Your task to perform on an android device: change notification settings in the gmail app Image 0: 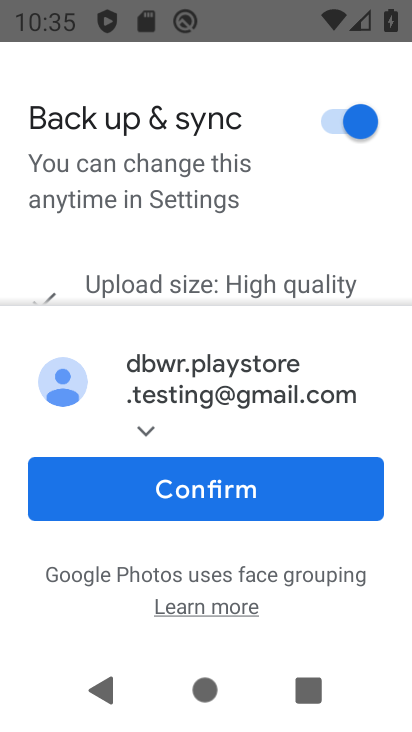
Step 0: press back button
Your task to perform on an android device: change notification settings in the gmail app Image 1: 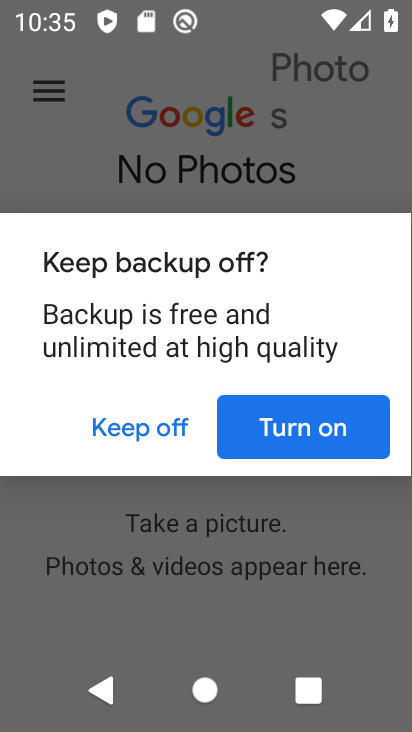
Step 1: press home button
Your task to perform on an android device: change notification settings in the gmail app Image 2: 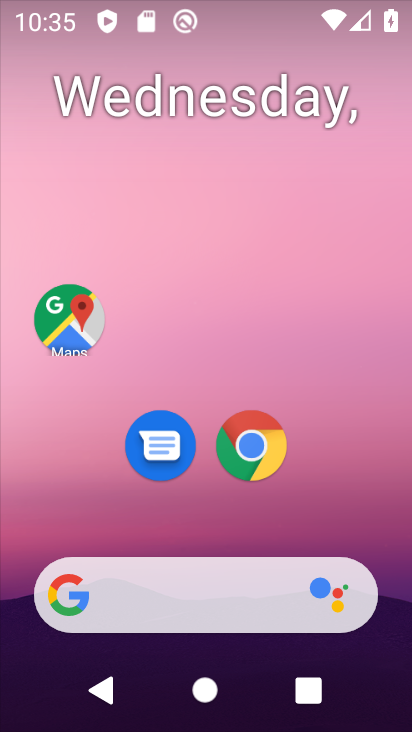
Step 2: drag from (132, 560) to (208, 73)
Your task to perform on an android device: change notification settings in the gmail app Image 3: 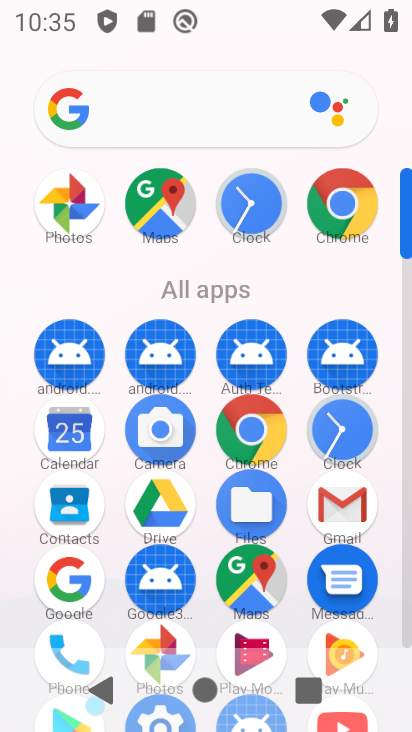
Step 3: click (326, 503)
Your task to perform on an android device: change notification settings in the gmail app Image 4: 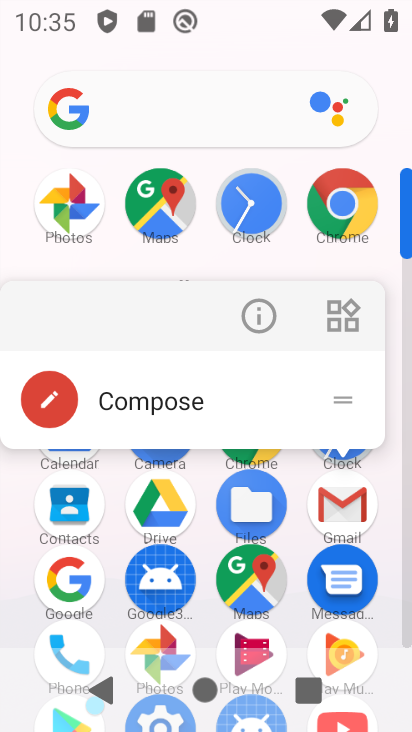
Step 4: click (260, 318)
Your task to perform on an android device: change notification settings in the gmail app Image 5: 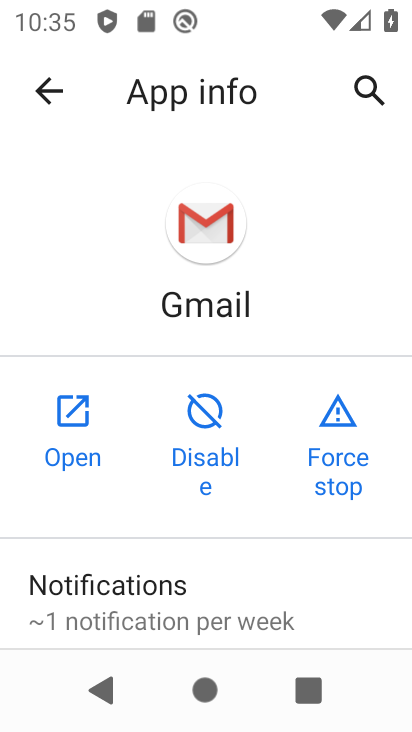
Step 5: click (134, 607)
Your task to perform on an android device: change notification settings in the gmail app Image 6: 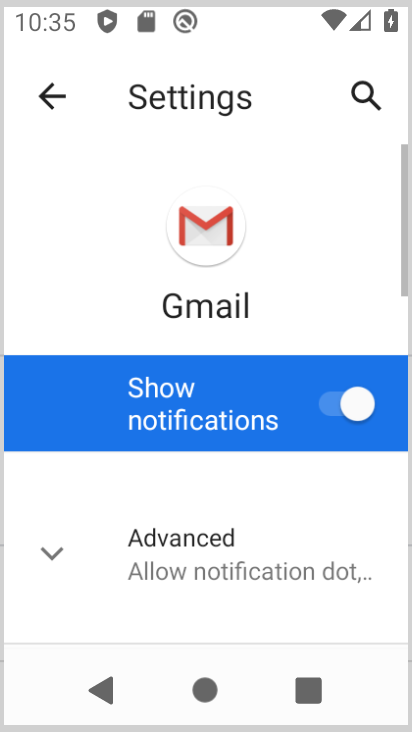
Step 6: drag from (149, 590) to (206, 148)
Your task to perform on an android device: change notification settings in the gmail app Image 7: 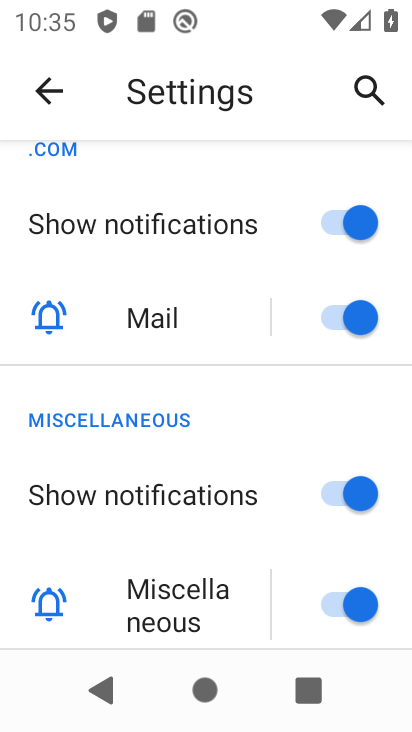
Step 7: click (365, 226)
Your task to perform on an android device: change notification settings in the gmail app Image 8: 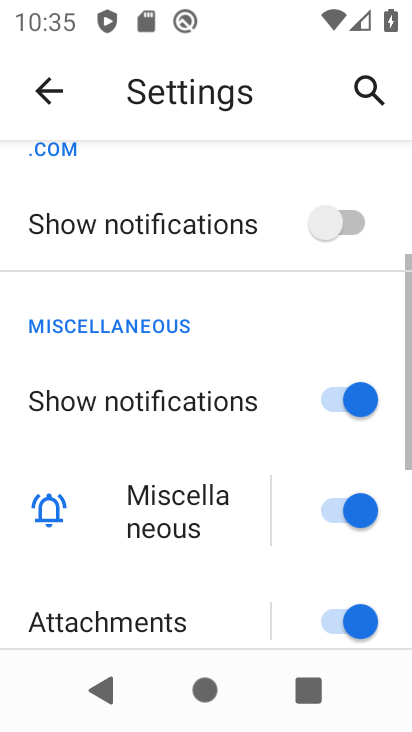
Step 8: task complete